Your task to perform on an android device: manage bookmarks in the chrome app Image 0: 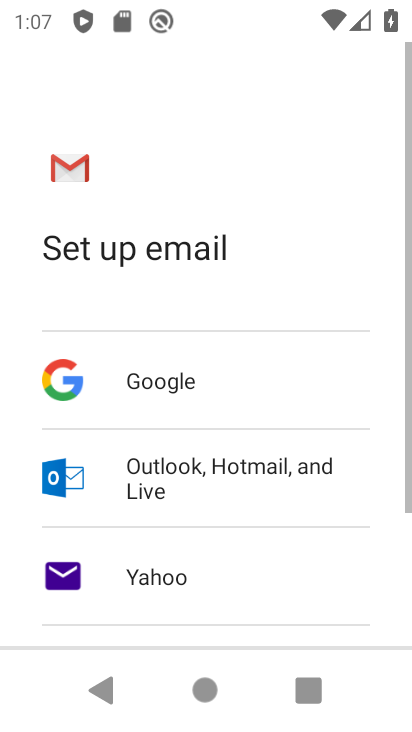
Step 0: press back button
Your task to perform on an android device: manage bookmarks in the chrome app Image 1: 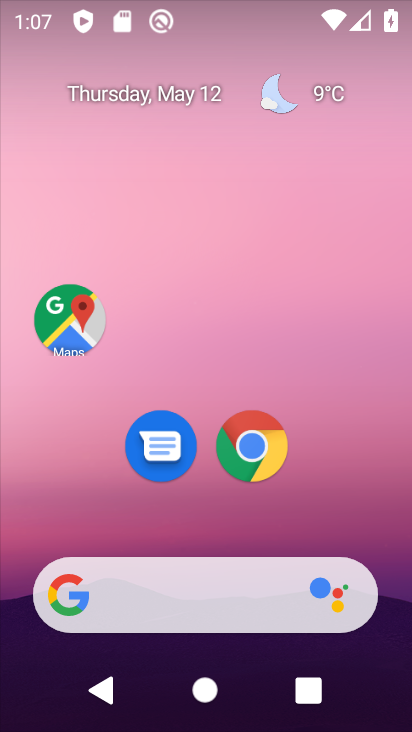
Step 1: click (268, 431)
Your task to perform on an android device: manage bookmarks in the chrome app Image 2: 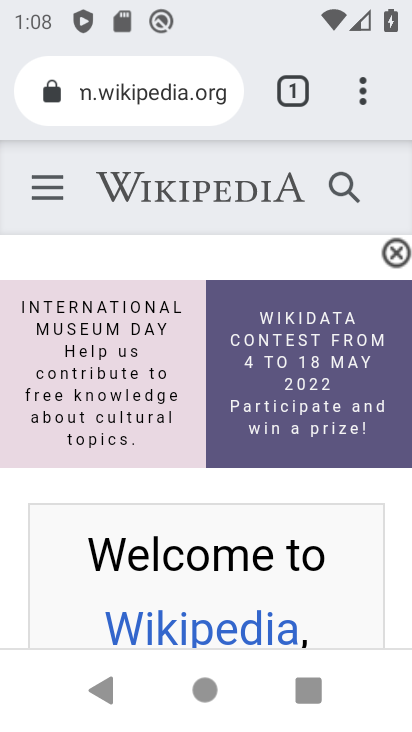
Step 2: task complete